Your task to perform on an android device: Go to CNN.com Image 0: 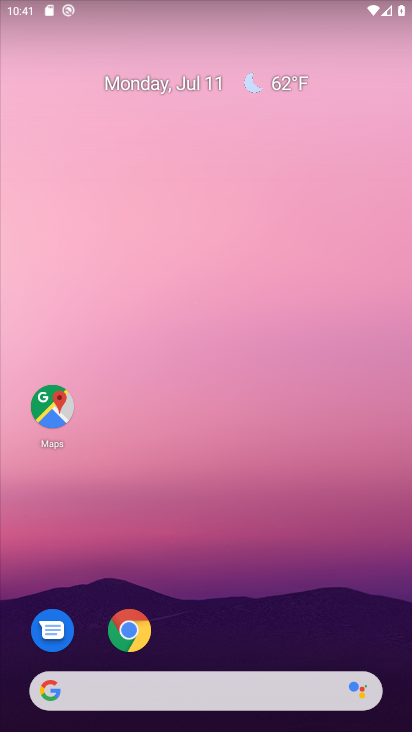
Step 0: drag from (271, 577) to (267, 35)
Your task to perform on an android device: Go to CNN.com Image 1: 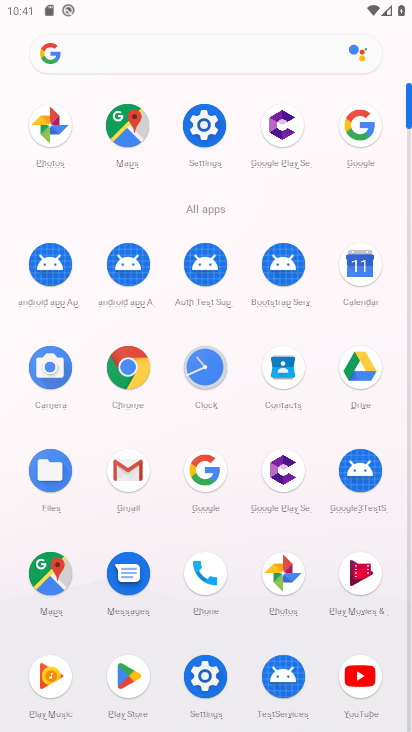
Step 1: click (202, 472)
Your task to perform on an android device: Go to CNN.com Image 2: 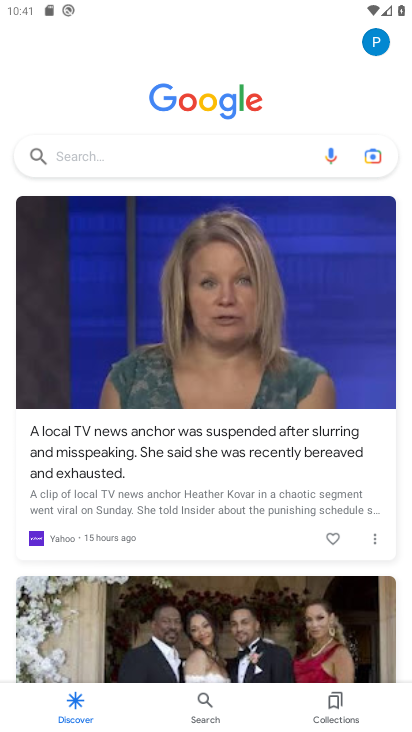
Step 2: click (205, 141)
Your task to perform on an android device: Go to CNN.com Image 3: 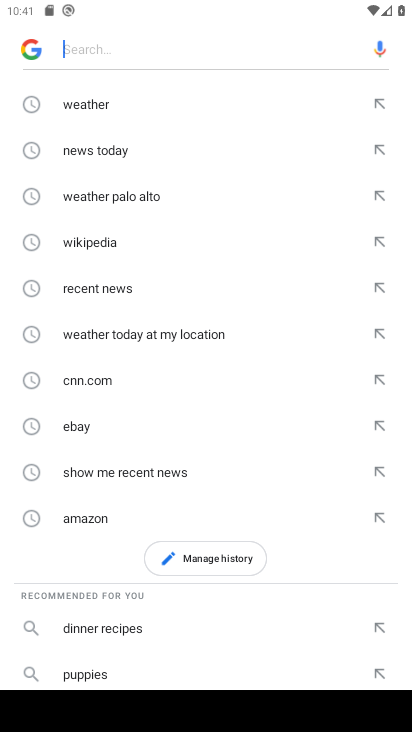
Step 3: click (84, 379)
Your task to perform on an android device: Go to CNN.com Image 4: 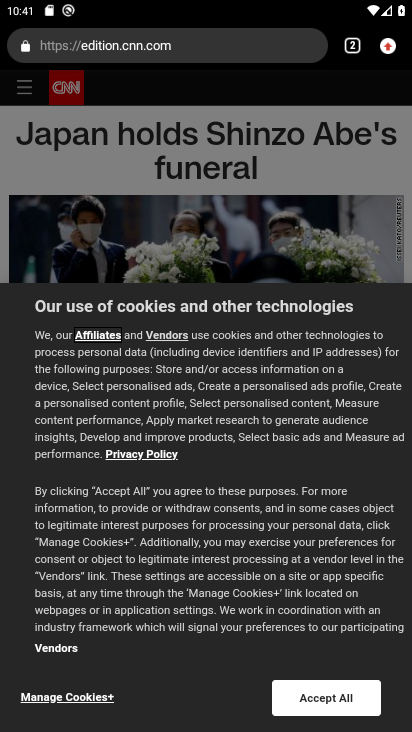
Step 4: task complete